Your task to perform on an android device: clear all cookies in the chrome app Image 0: 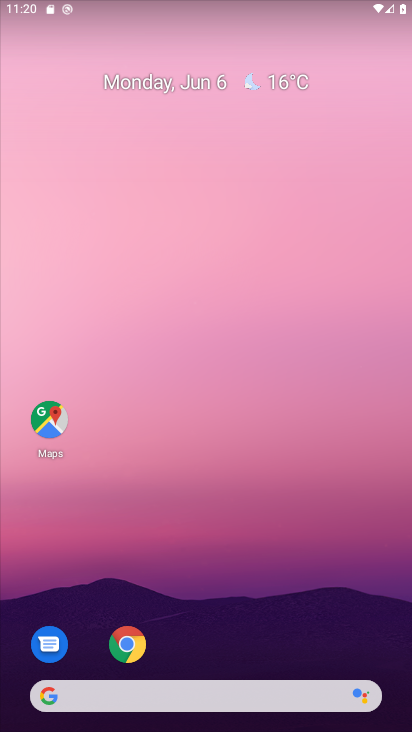
Step 0: drag from (146, 678) to (319, 146)
Your task to perform on an android device: clear all cookies in the chrome app Image 1: 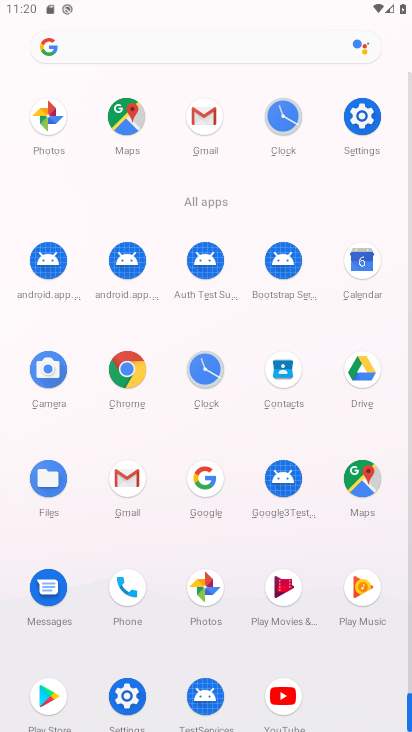
Step 1: click (129, 374)
Your task to perform on an android device: clear all cookies in the chrome app Image 2: 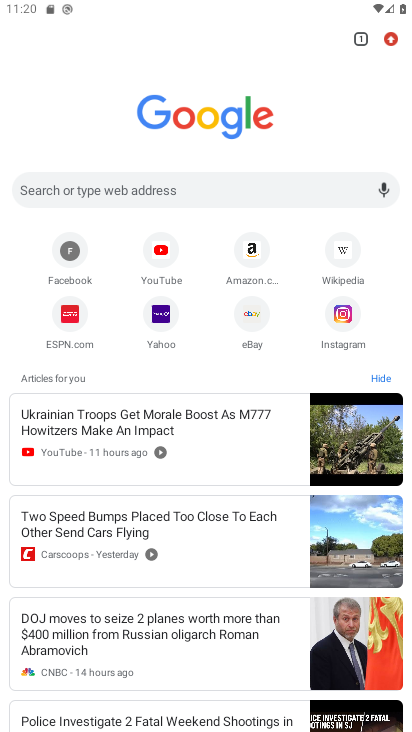
Step 2: drag from (385, 31) to (275, 361)
Your task to perform on an android device: clear all cookies in the chrome app Image 3: 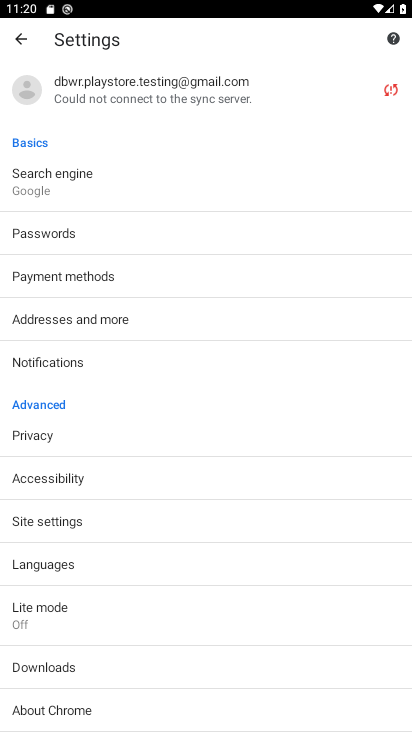
Step 3: click (134, 437)
Your task to perform on an android device: clear all cookies in the chrome app Image 4: 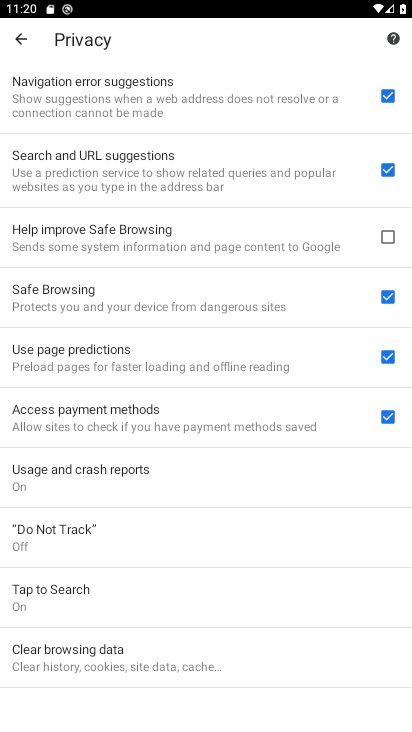
Step 4: drag from (117, 658) to (313, 236)
Your task to perform on an android device: clear all cookies in the chrome app Image 5: 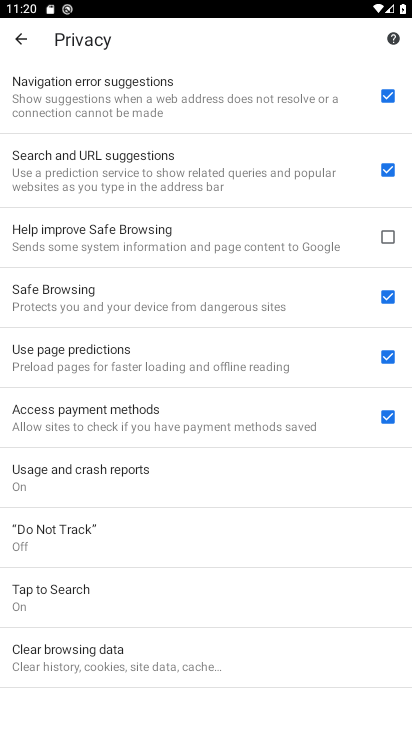
Step 5: click (170, 676)
Your task to perform on an android device: clear all cookies in the chrome app Image 6: 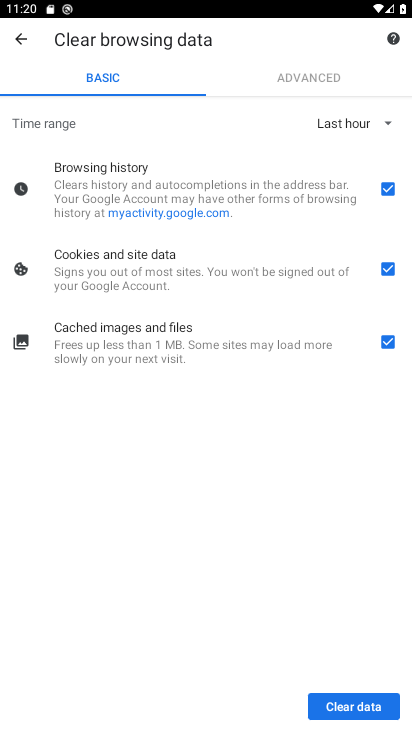
Step 6: click (393, 184)
Your task to perform on an android device: clear all cookies in the chrome app Image 7: 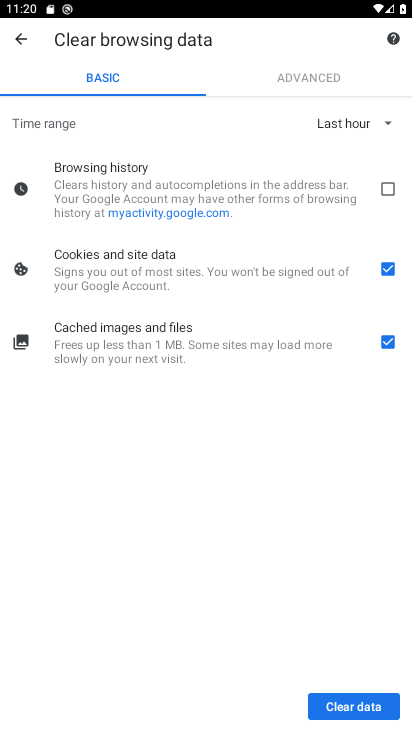
Step 7: click (389, 338)
Your task to perform on an android device: clear all cookies in the chrome app Image 8: 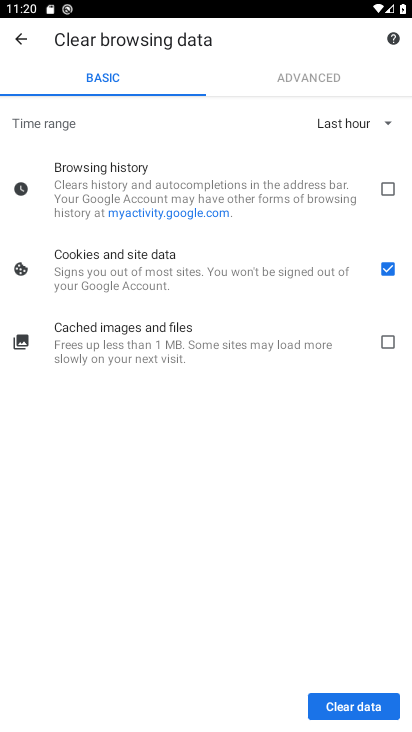
Step 8: click (325, 704)
Your task to perform on an android device: clear all cookies in the chrome app Image 9: 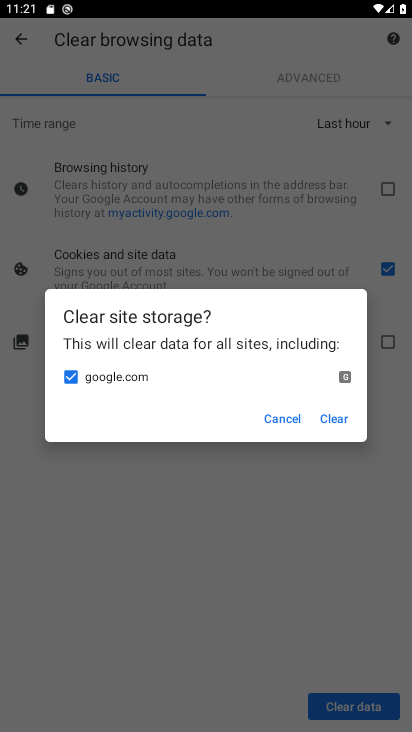
Step 9: click (335, 425)
Your task to perform on an android device: clear all cookies in the chrome app Image 10: 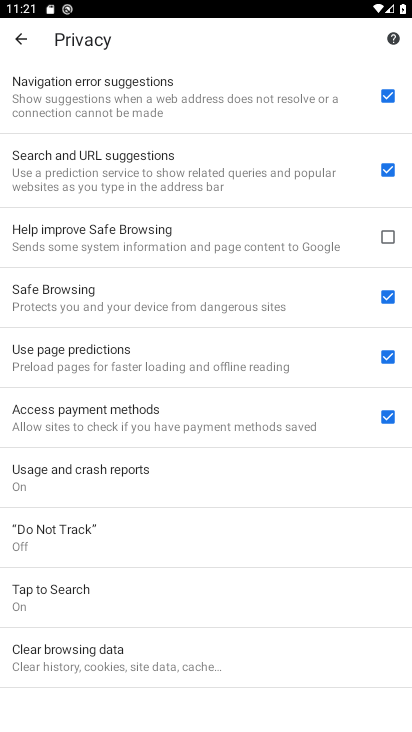
Step 10: task complete